Your task to perform on an android device: Toggle the flashlight Image 0: 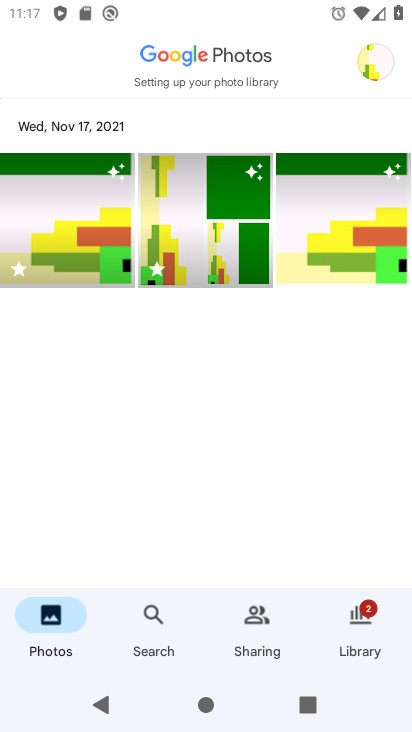
Step 0: press back button
Your task to perform on an android device: Toggle the flashlight Image 1: 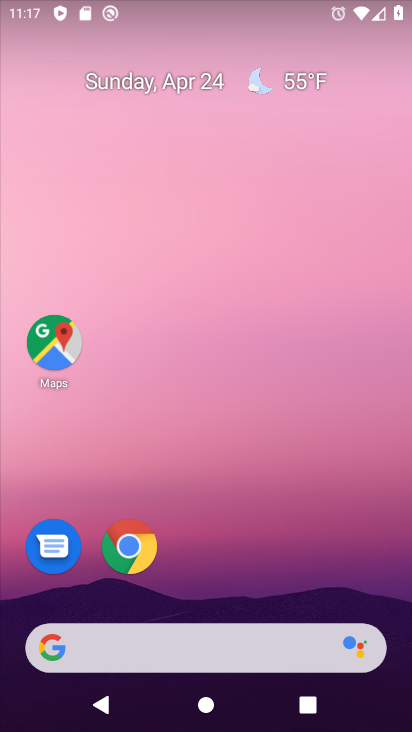
Step 1: drag from (227, 531) to (228, 26)
Your task to perform on an android device: Toggle the flashlight Image 2: 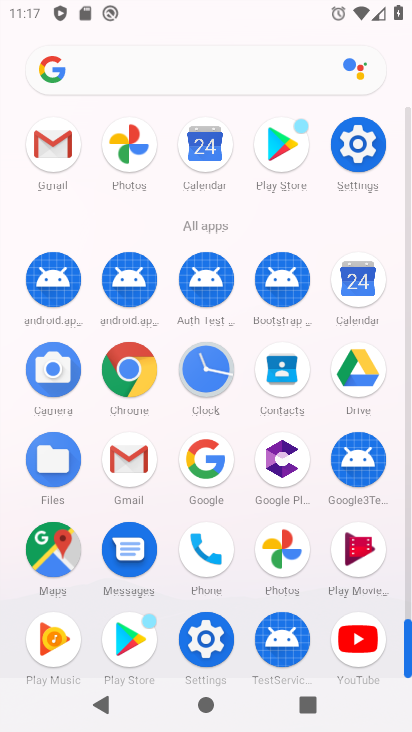
Step 2: click (361, 144)
Your task to perform on an android device: Toggle the flashlight Image 3: 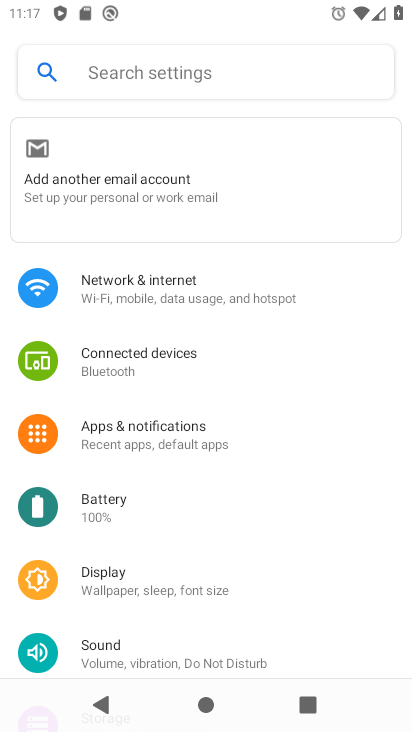
Step 3: click (154, 582)
Your task to perform on an android device: Toggle the flashlight Image 4: 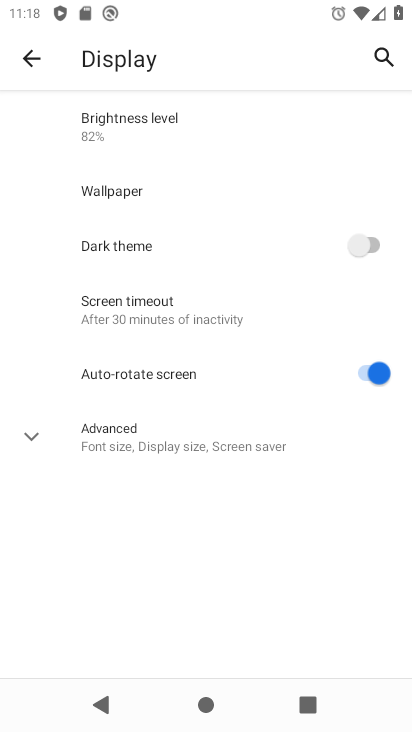
Step 4: click (88, 426)
Your task to perform on an android device: Toggle the flashlight Image 5: 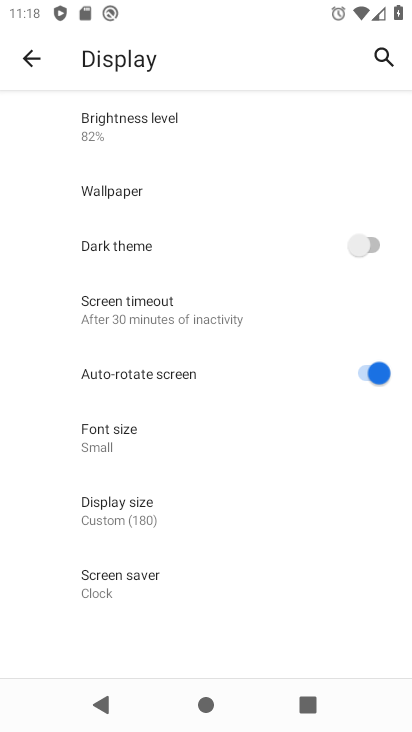
Step 5: drag from (136, 493) to (206, 357)
Your task to perform on an android device: Toggle the flashlight Image 6: 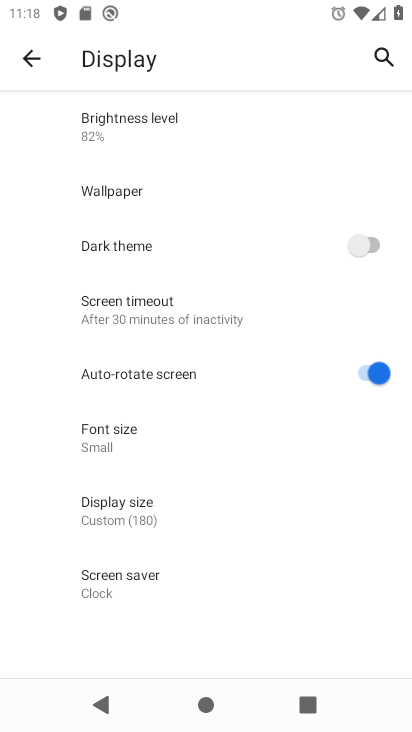
Step 6: click (112, 323)
Your task to perform on an android device: Toggle the flashlight Image 7: 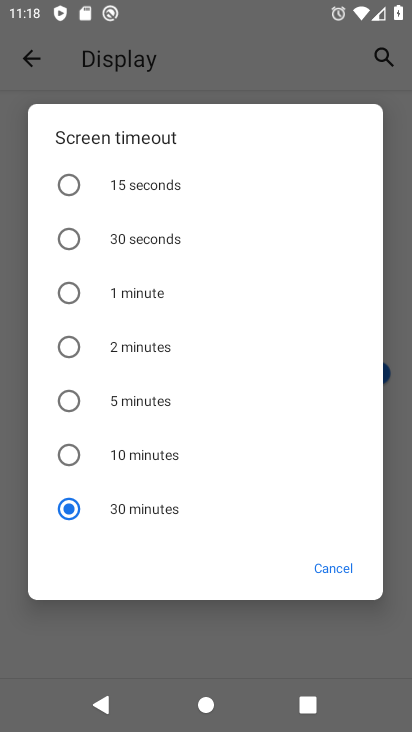
Step 7: click (331, 576)
Your task to perform on an android device: Toggle the flashlight Image 8: 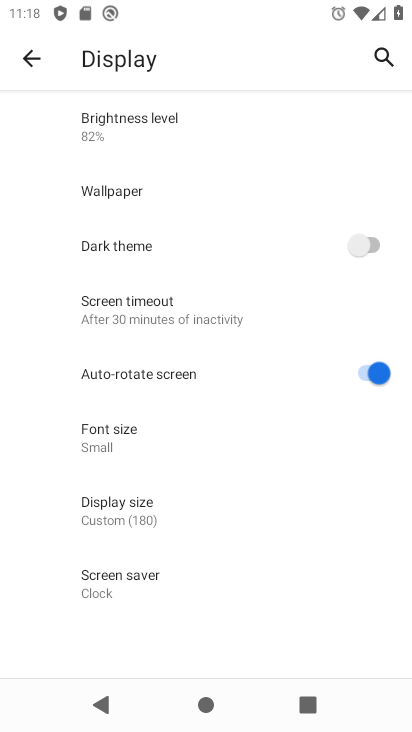
Step 8: press back button
Your task to perform on an android device: Toggle the flashlight Image 9: 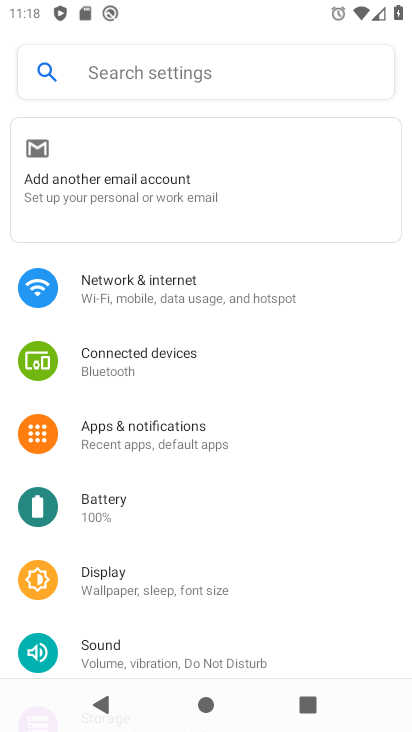
Step 9: drag from (175, 570) to (207, 500)
Your task to perform on an android device: Toggle the flashlight Image 10: 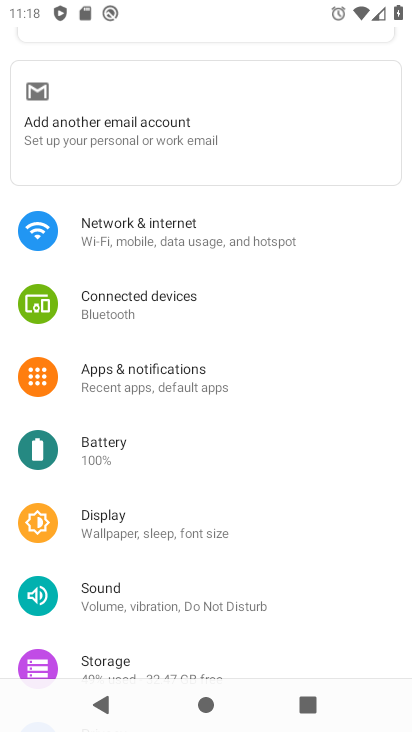
Step 10: drag from (224, 560) to (244, 494)
Your task to perform on an android device: Toggle the flashlight Image 11: 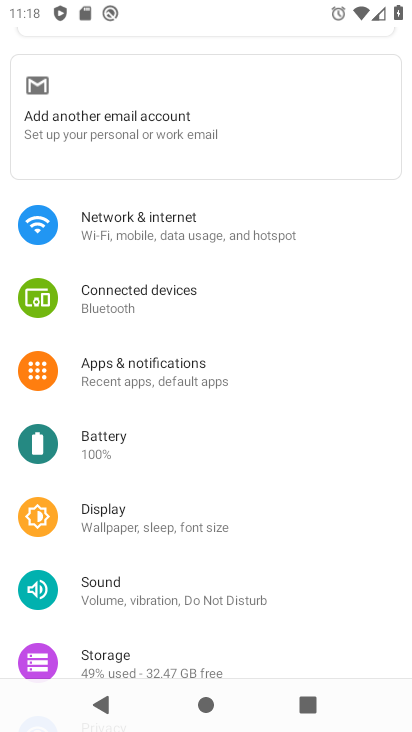
Step 11: drag from (182, 623) to (254, 452)
Your task to perform on an android device: Toggle the flashlight Image 12: 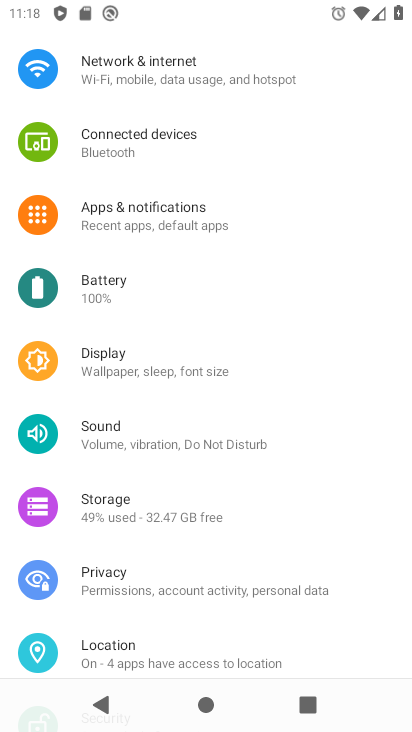
Step 12: drag from (198, 549) to (220, 426)
Your task to perform on an android device: Toggle the flashlight Image 13: 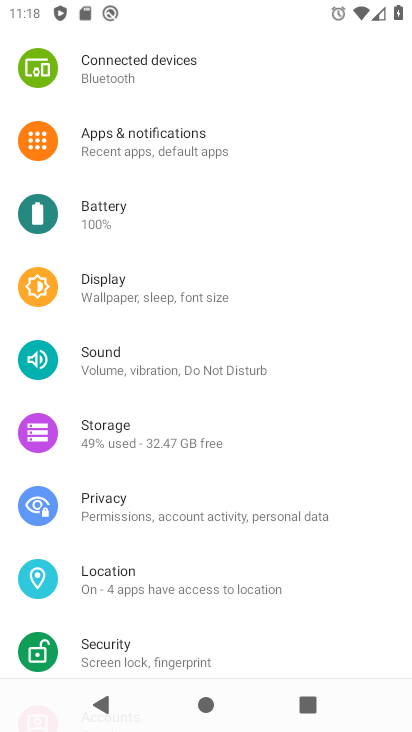
Step 13: drag from (155, 543) to (191, 471)
Your task to perform on an android device: Toggle the flashlight Image 14: 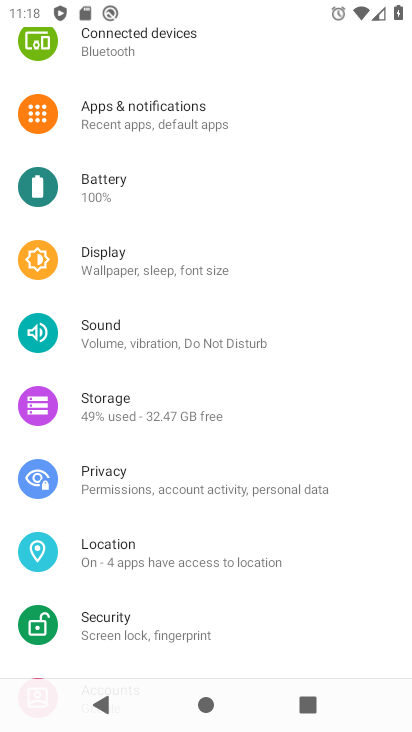
Step 14: drag from (154, 542) to (233, 446)
Your task to perform on an android device: Toggle the flashlight Image 15: 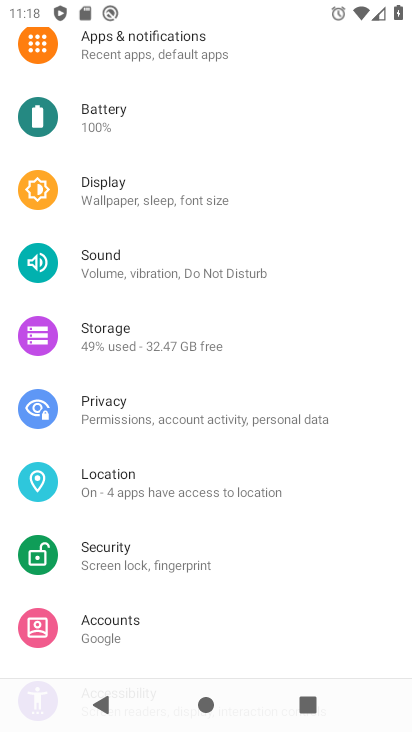
Step 15: drag from (164, 523) to (224, 445)
Your task to perform on an android device: Toggle the flashlight Image 16: 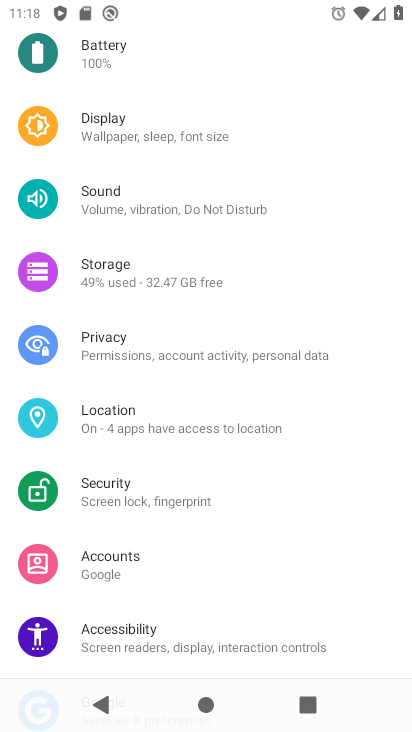
Step 16: drag from (170, 566) to (224, 454)
Your task to perform on an android device: Toggle the flashlight Image 17: 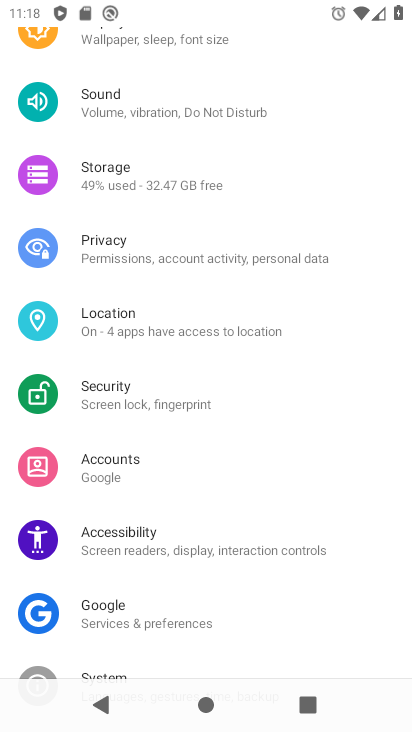
Step 17: click (152, 532)
Your task to perform on an android device: Toggle the flashlight Image 18: 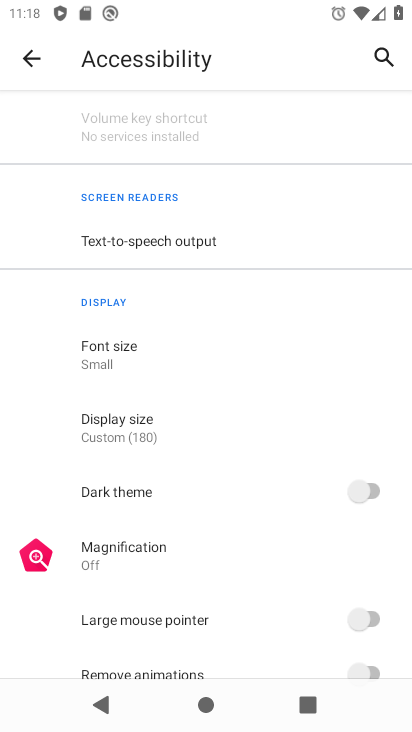
Step 18: task complete